Your task to perform on an android device: Open Amazon Image 0: 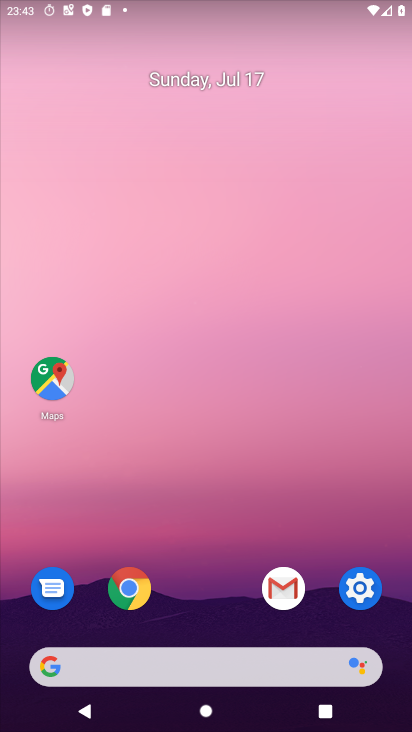
Step 0: press home button
Your task to perform on an android device: Open Amazon Image 1: 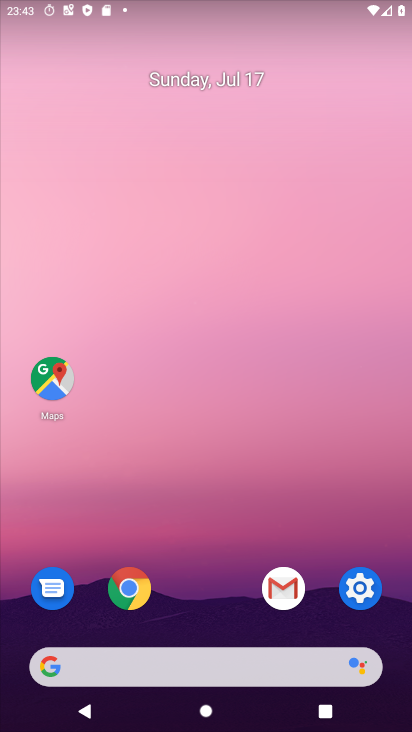
Step 1: click (125, 602)
Your task to perform on an android device: Open Amazon Image 2: 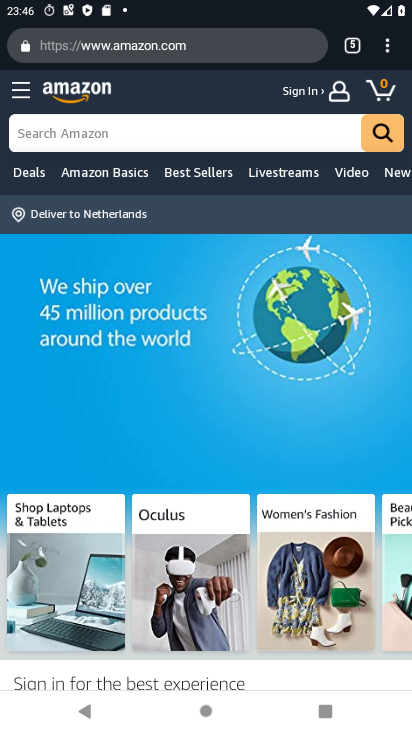
Step 2: task complete